Your task to perform on an android device: allow cookies in the chrome app Image 0: 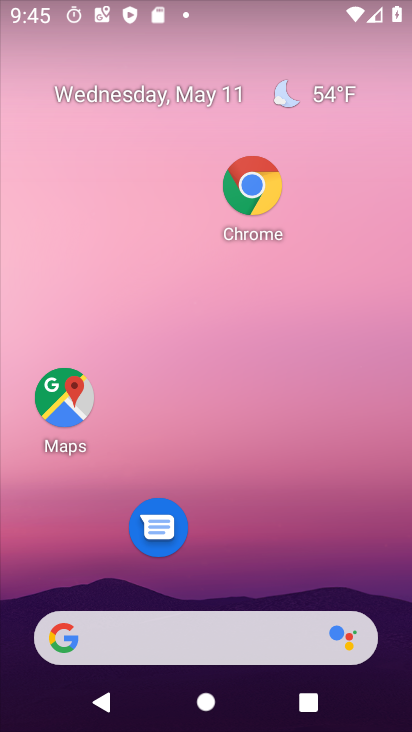
Step 0: click (249, 183)
Your task to perform on an android device: allow cookies in the chrome app Image 1: 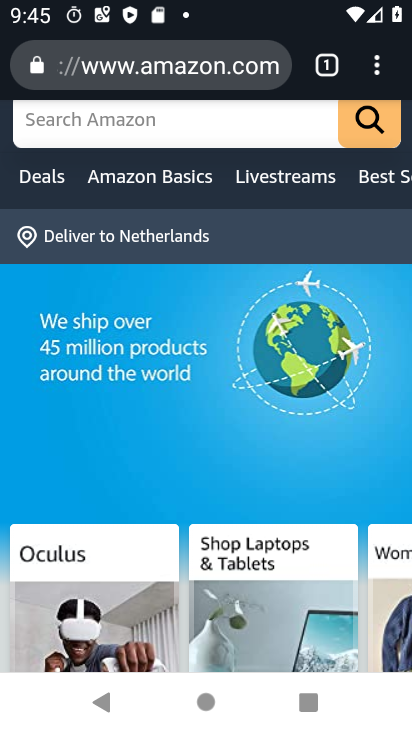
Step 1: click (372, 72)
Your task to perform on an android device: allow cookies in the chrome app Image 2: 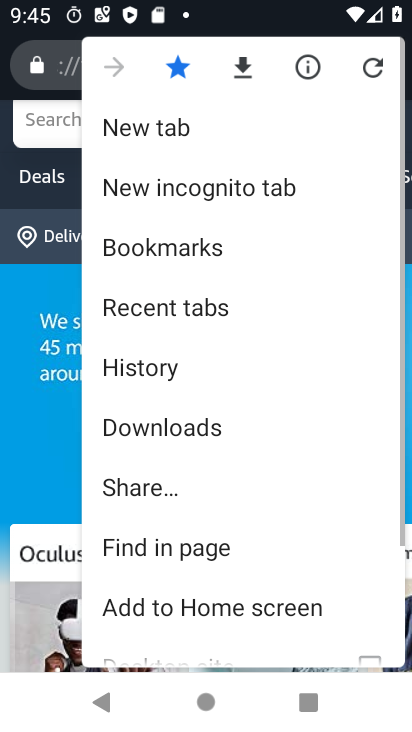
Step 2: drag from (217, 569) to (152, 120)
Your task to perform on an android device: allow cookies in the chrome app Image 3: 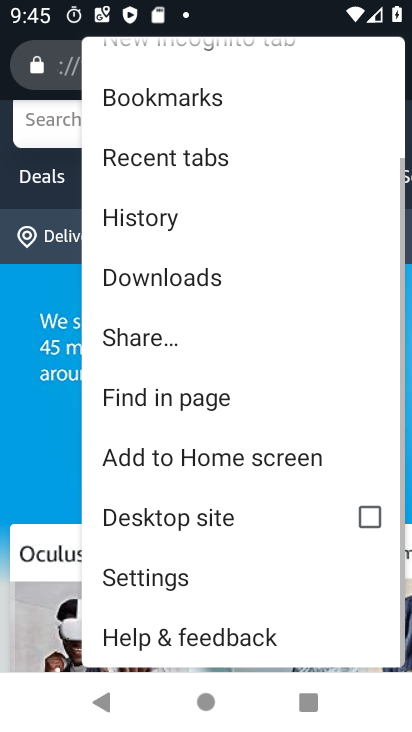
Step 3: click (204, 568)
Your task to perform on an android device: allow cookies in the chrome app Image 4: 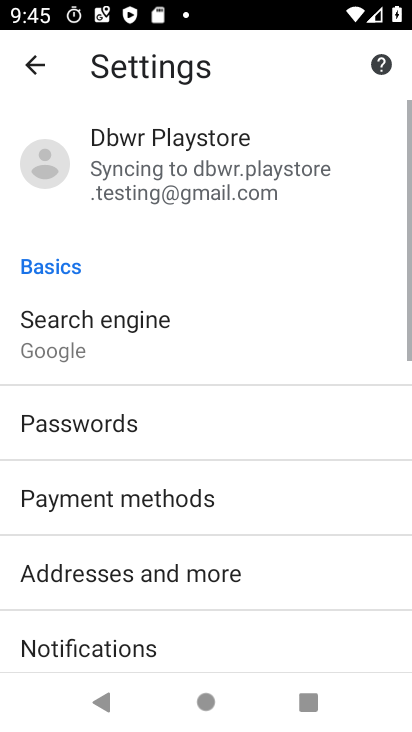
Step 4: drag from (230, 530) to (124, 96)
Your task to perform on an android device: allow cookies in the chrome app Image 5: 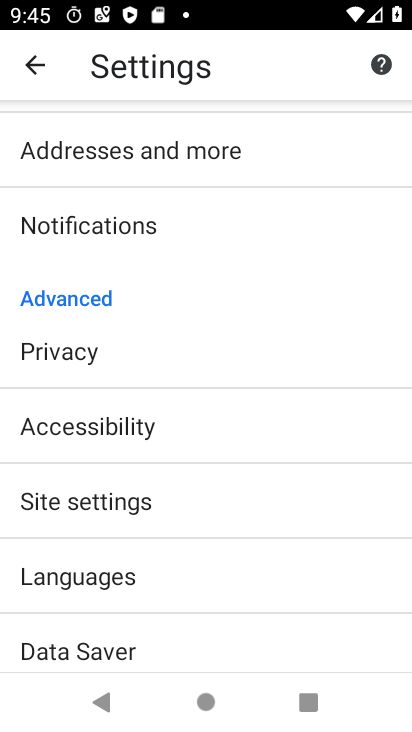
Step 5: click (154, 482)
Your task to perform on an android device: allow cookies in the chrome app Image 6: 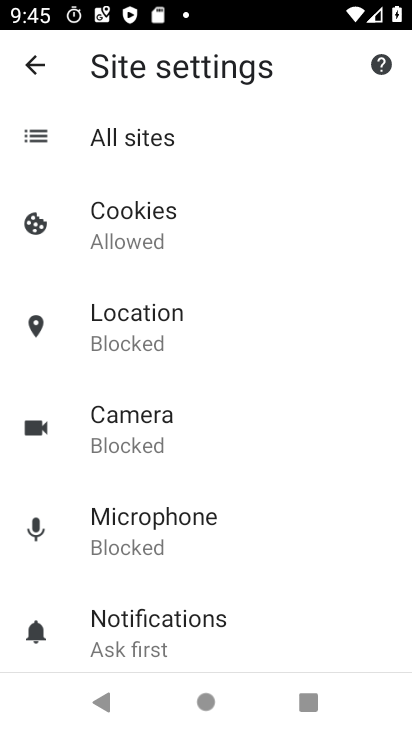
Step 6: click (128, 208)
Your task to perform on an android device: allow cookies in the chrome app Image 7: 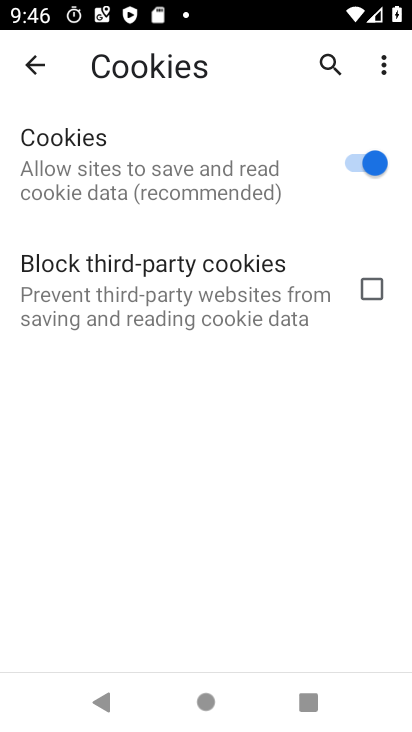
Step 7: task complete